Your task to perform on an android device: Go to Amazon Image 0: 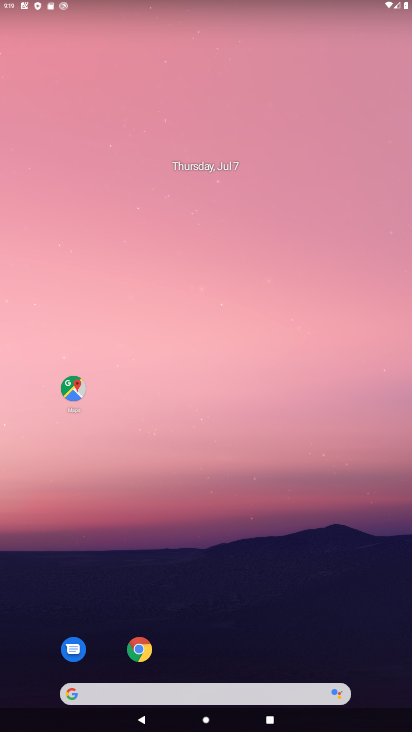
Step 0: click (211, 698)
Your task to perform on an android device: Go to Amazon Image 1: 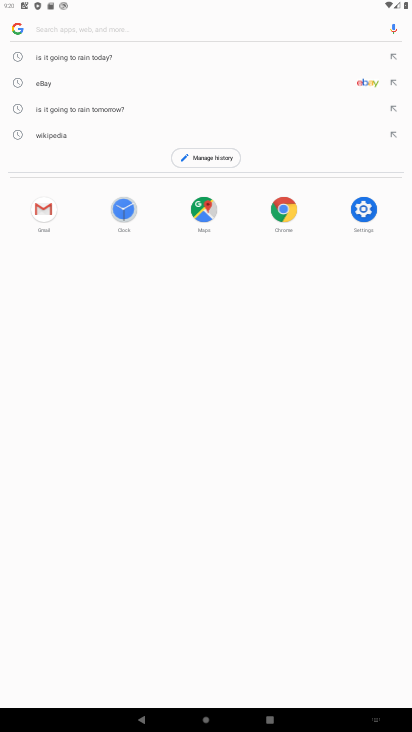
Step 1: type "amazon.com"
Your task to perform on an android device: Go to Amazon Image 2: 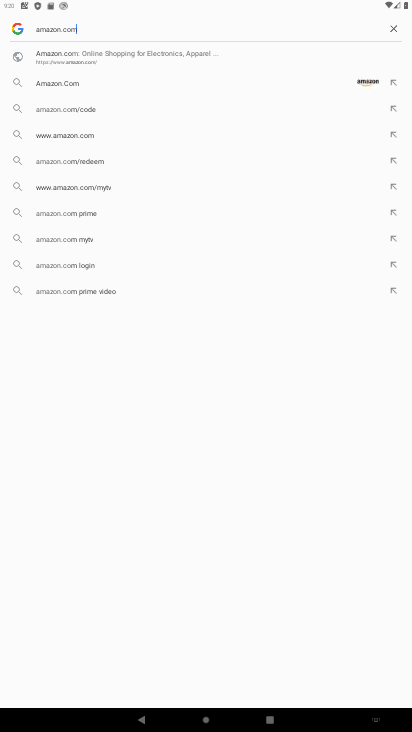
Step 2: press enter
Your task to perform on an android device: Go to Amazon Image 3: 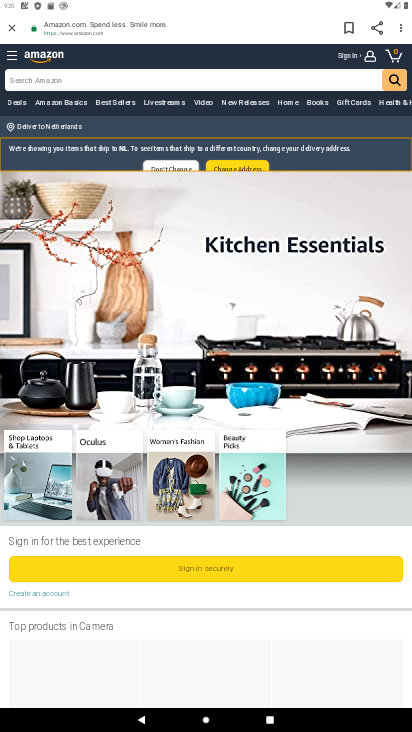
Step 3: task complete